Your task to perform on an android device: check the backup settings in the google photos Image 0: 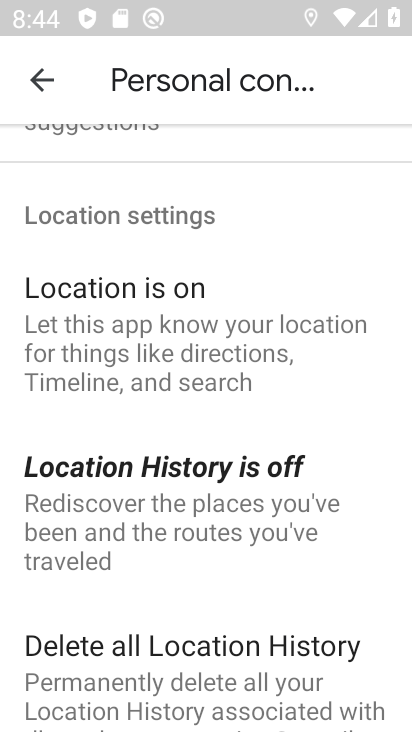
Step 0: press home button
Your task to perform on an android device: check the backup settings in the google photos Image 1: 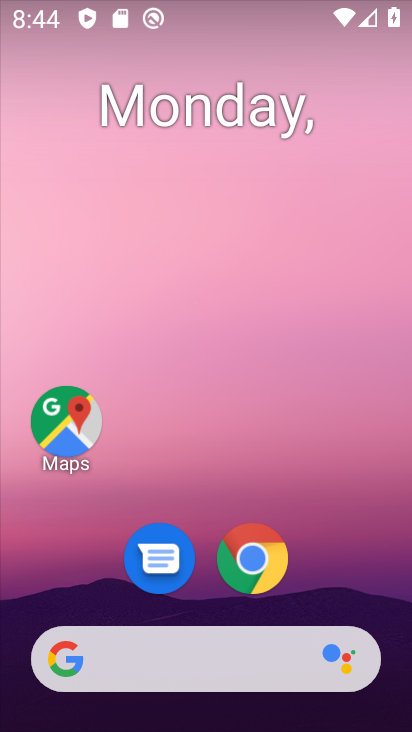
Step 1: drag from (325, 578) to (350, 62)
Your task to perform on an android device: check the backup settings in the google photos Image 2: 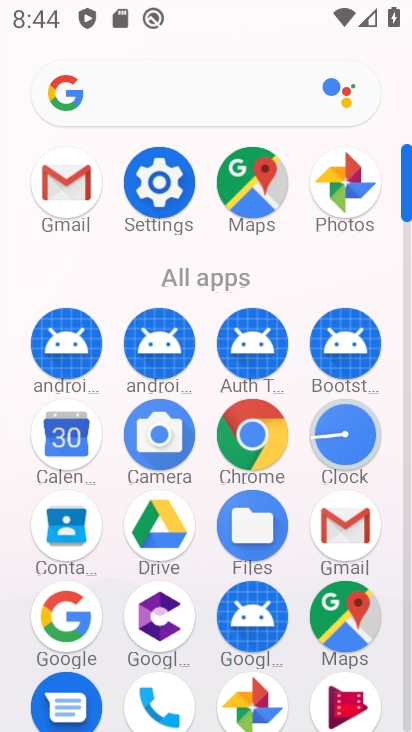
Step 2: click (74, 439)
Your task to perform on an android device: check the backup settings in the google photos Image 3: 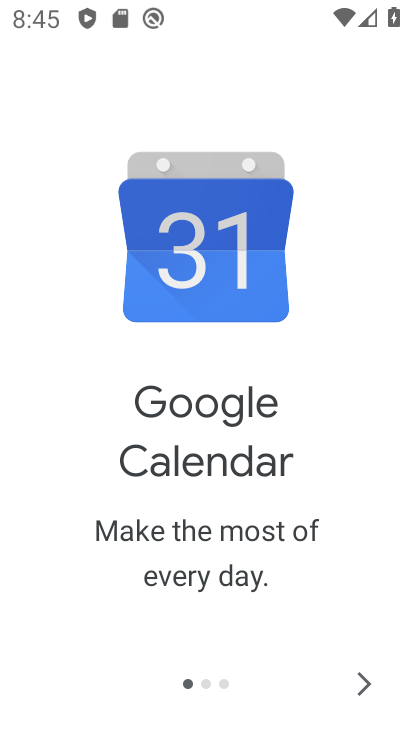
Step 3: click (370, 679)
Your task to perform on an android device: check the backup settings in the google photos Image 4: 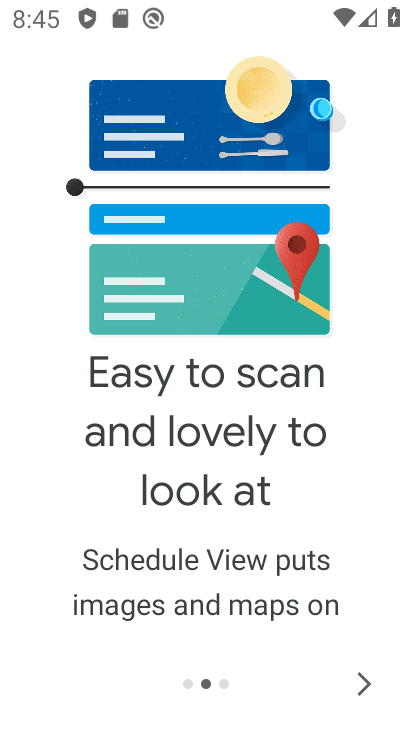
Step 4: click (370, 679)
Your task to perform on an android device: check the backup settings in the google photos Image 5: 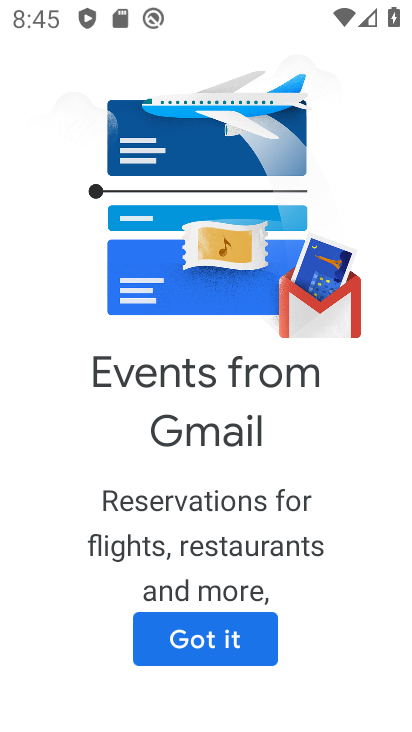
Step 5: click (230, 628)
Your task to perform on an android device: check the backup settings in the google photos Image 6: 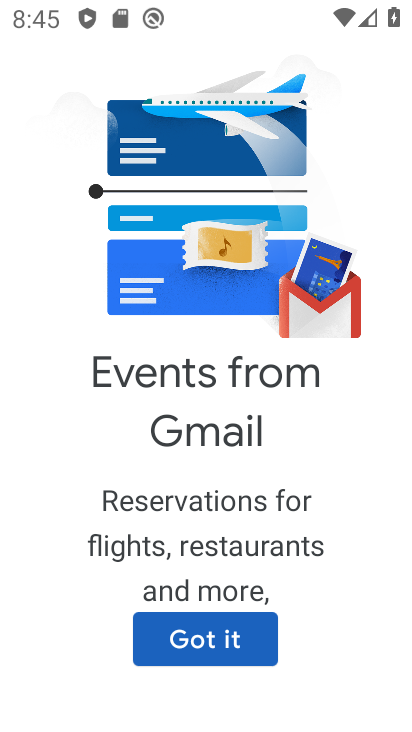
Step 6: click (230, 628)
Your task to perform on an android device: check the backup settings in the google photos Image 7: 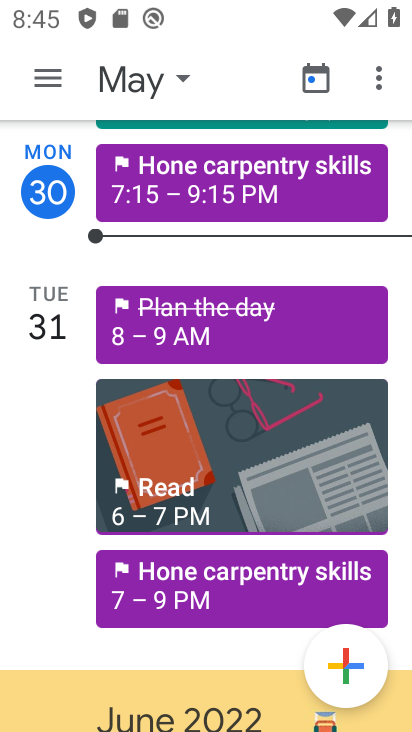
Step 7: click (42, 75)
Your task to perform on an android device: check the backup settings in the google photos Image 8: 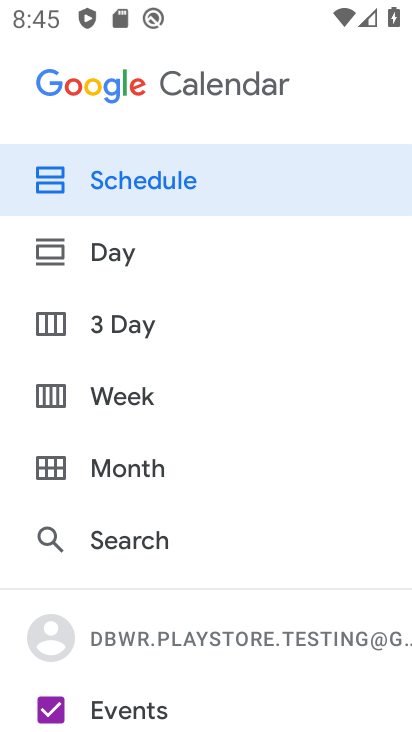
Step 8: click (119, 199)
Your task to perform on an android device: check the backup settings in the google photos Image 9: 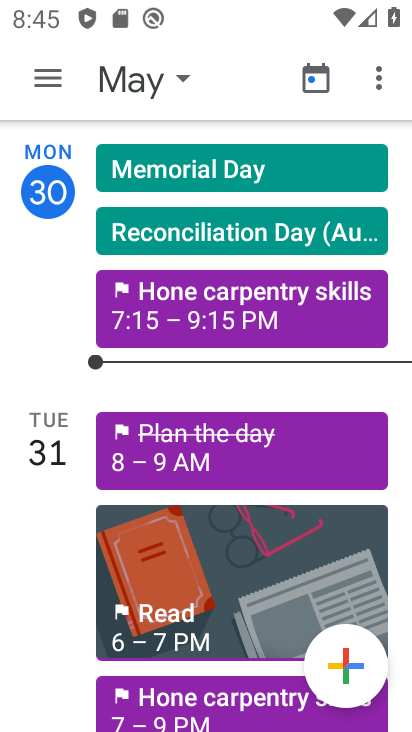
Step 9: task complete